Your task to perform on an android device: turn off javascript in the chrome app Image 0: 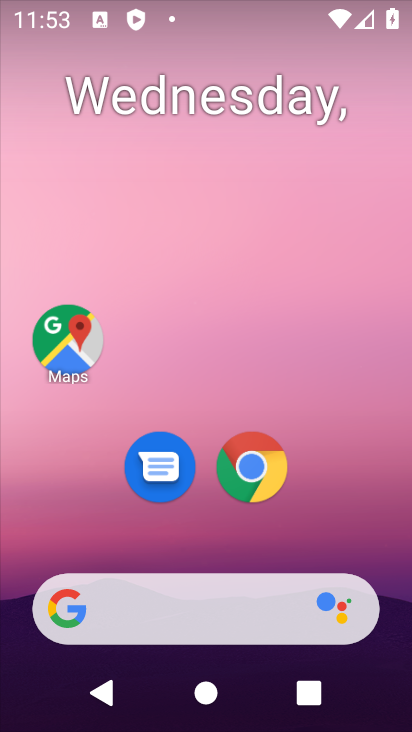
Step 0: click (237, 462)
Your task to perform on an android device: turn off javascript in the chrome app Image 1: 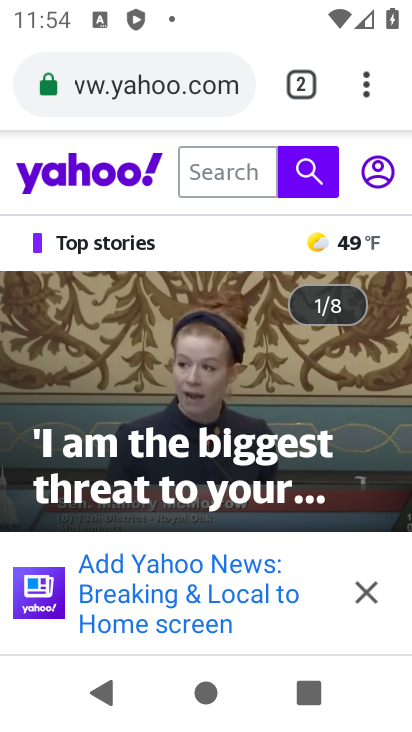
Step 1: drag from (370, 85) to (120, 500)
Your task to perform on an android device: turn off javascript in the chrome app Image 2: 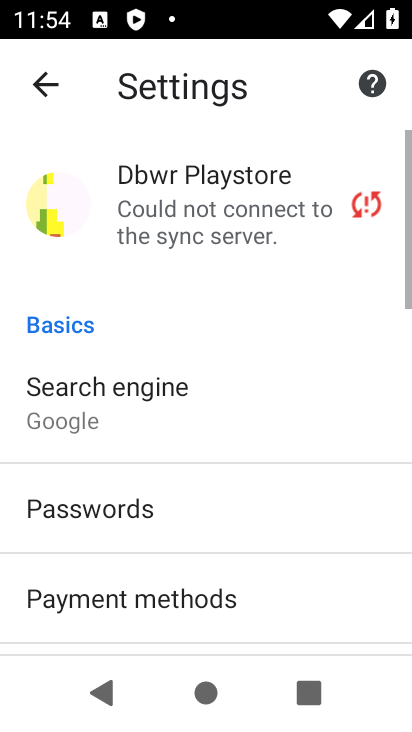
Step 2: drag from (193, 526) to (224, 123)
Your task to perform on an android device: turn off javascript in the chrome app Image 3: 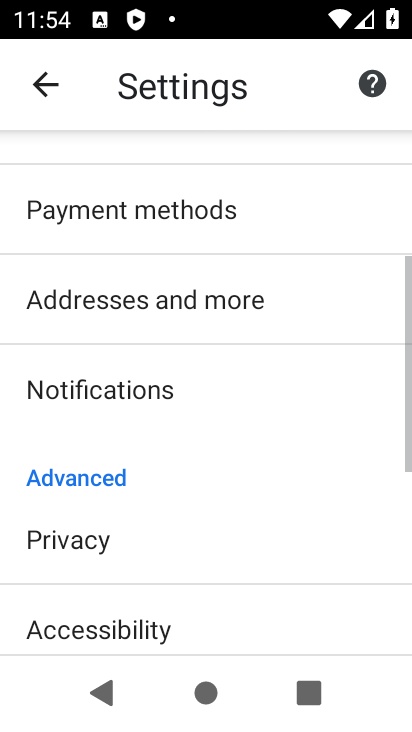
Step 3: drag from (199, 557) to (257, 203)
Your task to perform on an android device: turn off javascript in the chrome app Image 4: 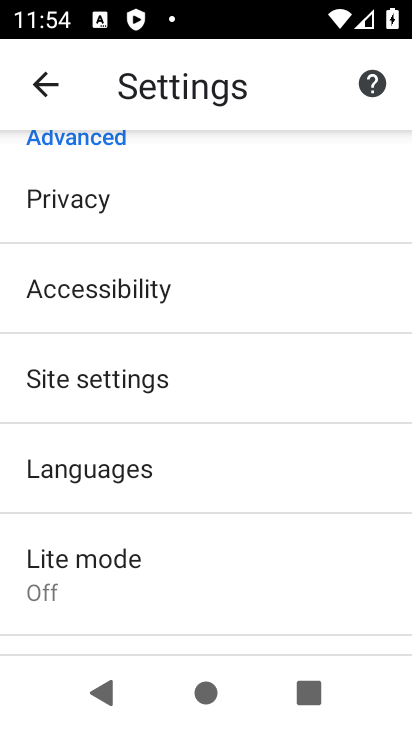
Step 4: click (134, 391)
Your task to perform on an android device: turn off javascript in the chrome app Image 5: 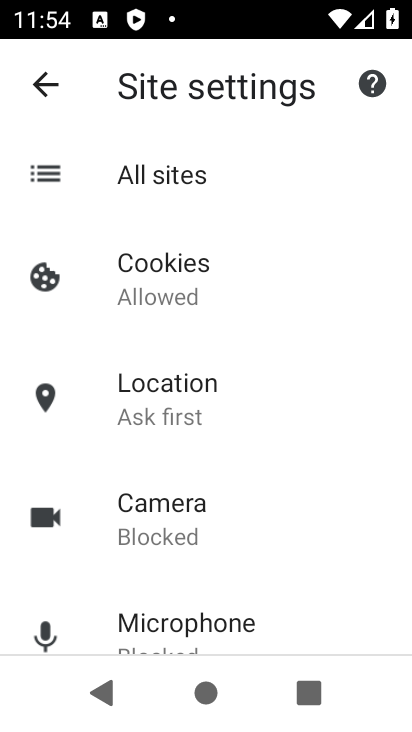
Step 5: drag from (233, 562) to (275, 250)
Your task to perform on an android device: turn off javascript in the chrome app Image 6: 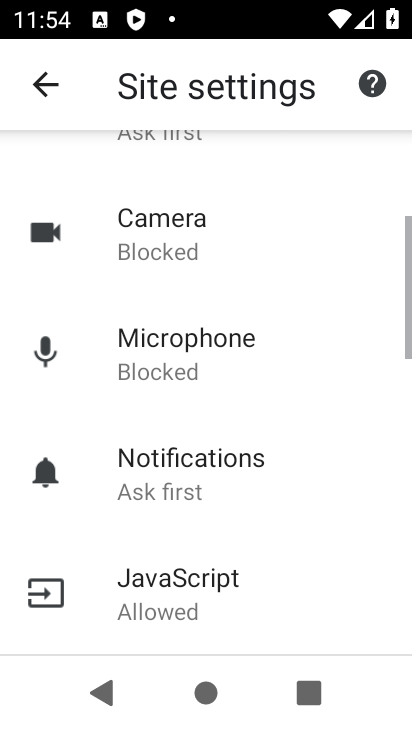
Step 6: drag from (246, 529) to (270, 364)
Your task to perform on an android device: turn off javascript in the chrome app Image 7: 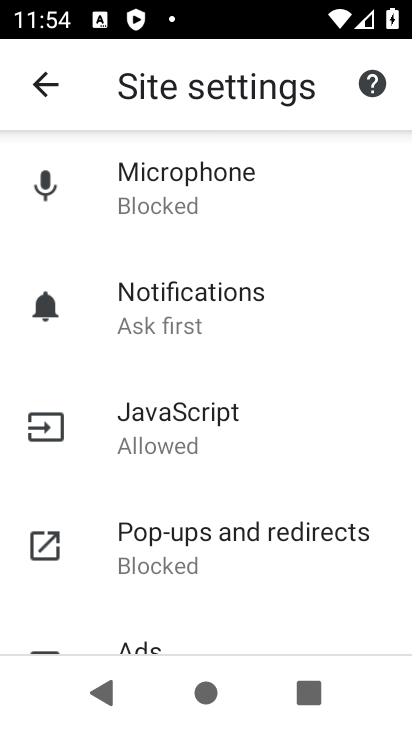
Step 7: click (231, 402)
Your task to perform on an android device: turn off javascript in the chrome app Image 8: 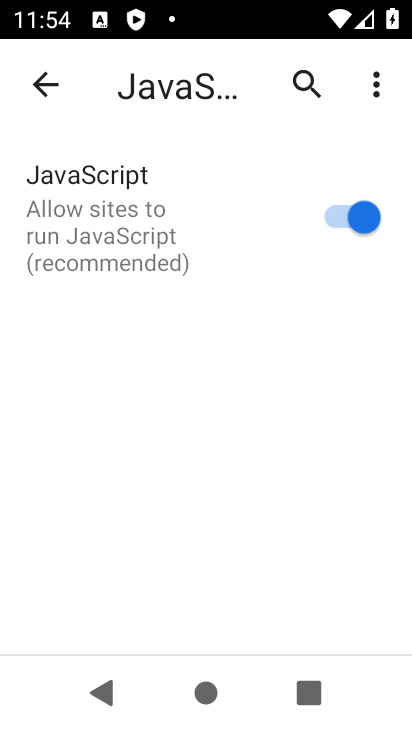
Step 8: click (325, 213)
Your task to perform on an android device: turn off javascript in the chrome app Image 9: 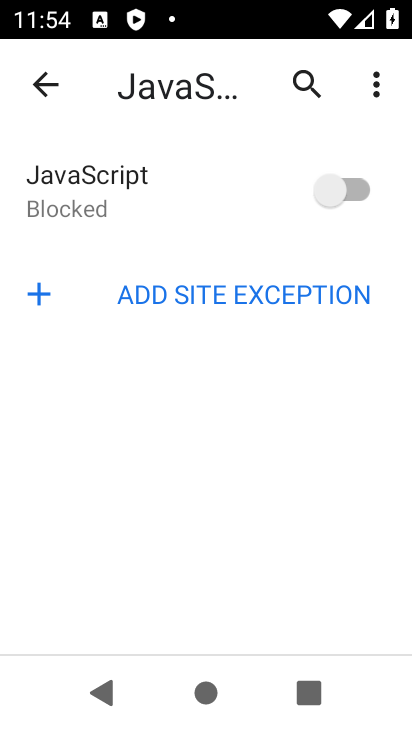
Step 9: task complete